Your task to perform on an android device: open a bookmark in the chrome app Image 0: 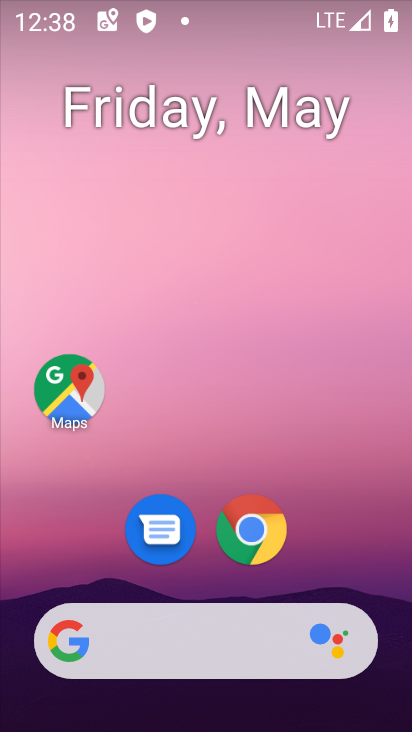
Step 0: click (231, 535)
Your task to perform on an android device: open a bookmark in the chrome app Image 1: 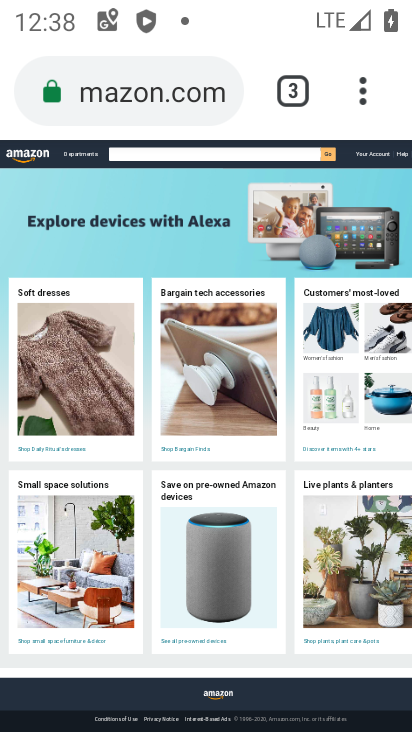
Step 1: click (362, 87)
Your task to perform on an android device: open a bookmark in the chrome app Image 2: 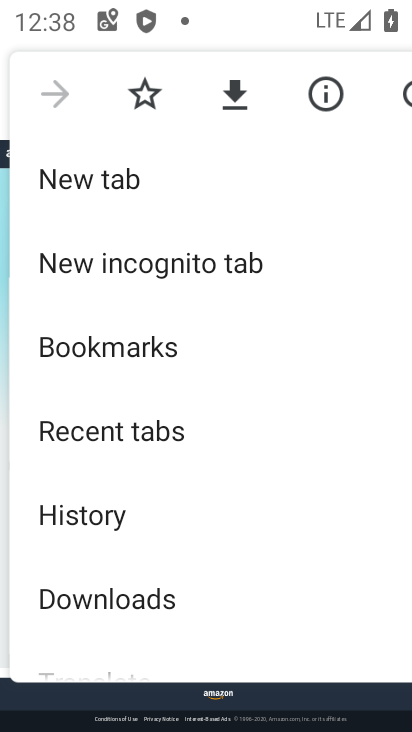
Step 2: click (78, 357)
Your task to perform on an android device: open a bookmark in the chrome app Image 3: 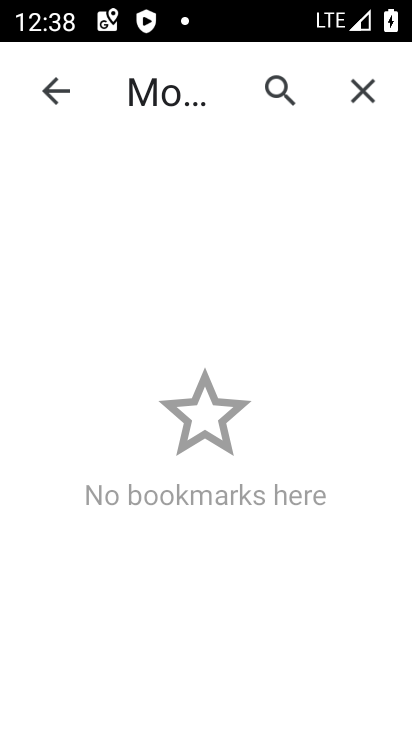
Step 3: task complete